Your task to perform on an android device: search for starred emails in the gmail app Image 0: 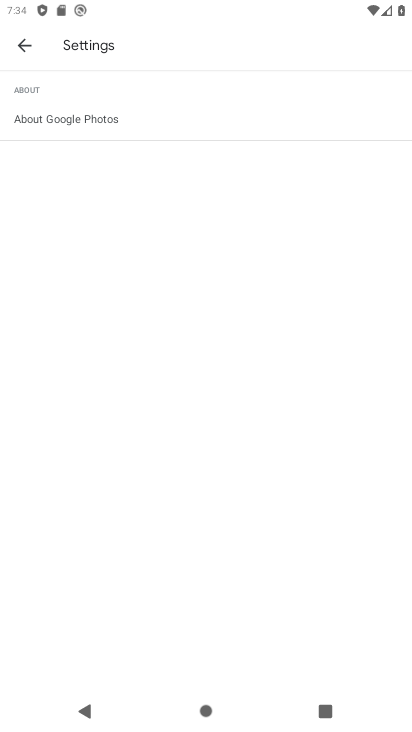
Step 0: press home button
Your task to perform on an android device: search for starred emails in the gmail app Image 1: 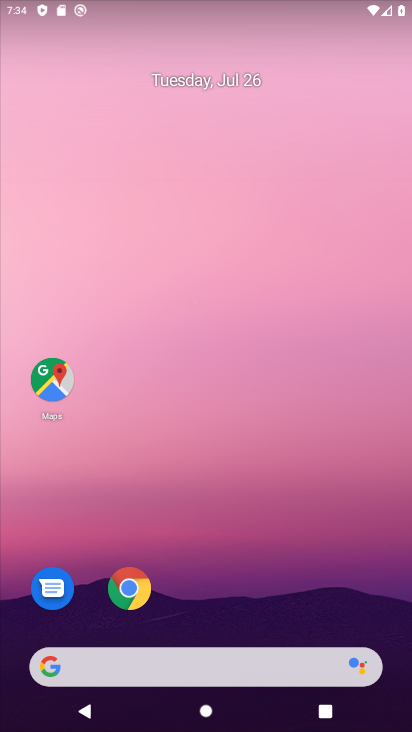
Step 1: drag from (240, 653) to (112, 145)
Your task to perform on an android device: search for starred emails in the gmail app Image 2: 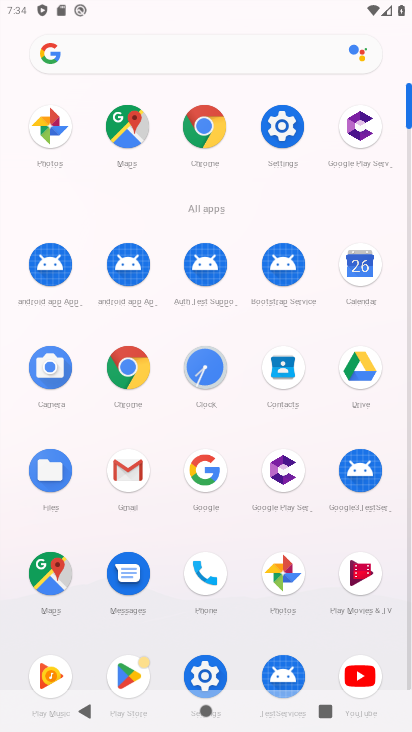
Step 2: click (120, 465)
Your task to perform on an android device: search for starred emails in the gmail app Image 3: 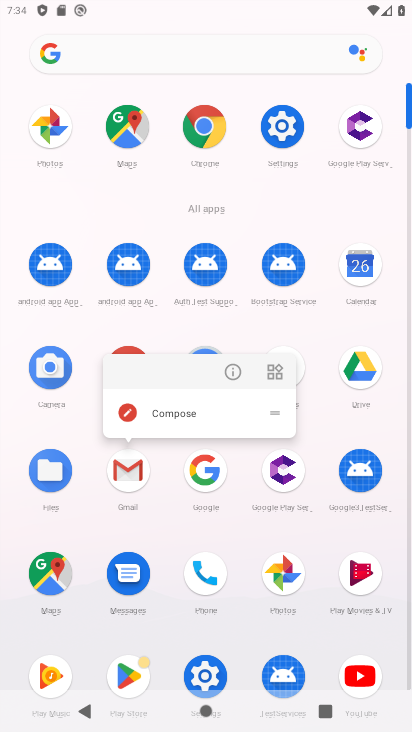
Step 3: click (118, 455)
Your task to perform on an android device: search for starred emails in the gmail app Image 4: 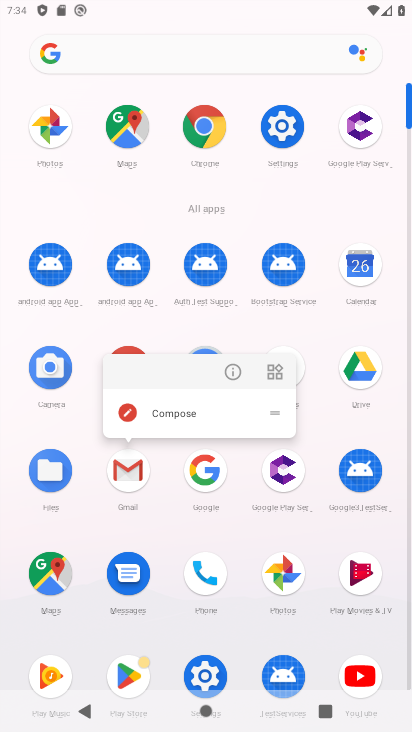
Step 4: click (126, 471)
Your task to perform on an android device: search for starred emails in the gmail app Image 5: 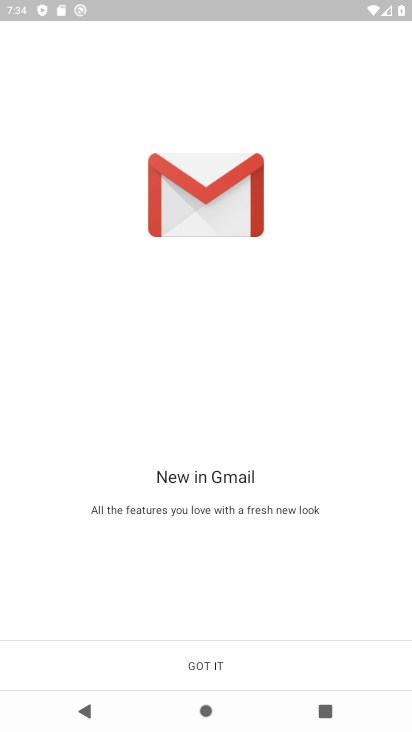
Step 5: click (232, 669)
Your task to perform on an android device: search for starred emails in the gmail app Image 6: 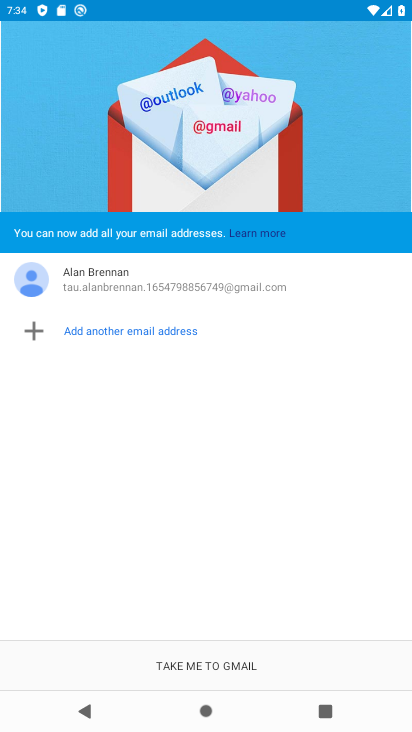
Step 6: click (232, 669)
Your task to perform on an android device: search for starred emails in the gmail app Image 7: 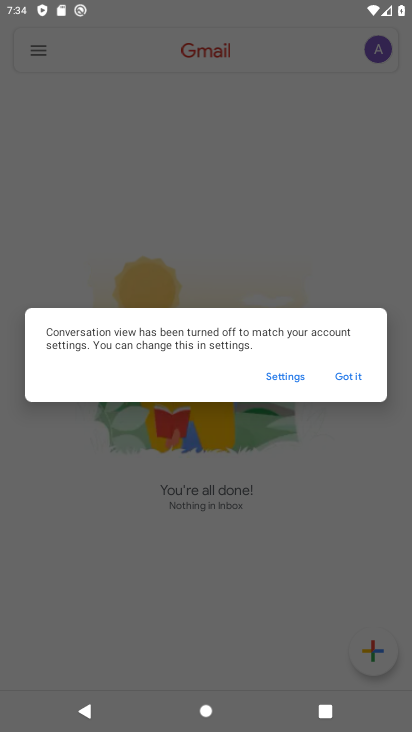
Step 7: click (351, 375)
Your task to perform on an android device: search for starred emails in the gmail app Image 8: 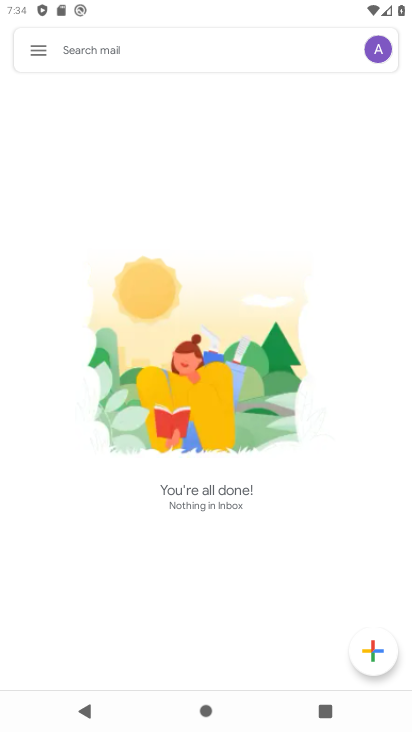
Step 8: click (44, 50)
Your task to perform on an android device: search for starred emails in the gmail app Image 9: 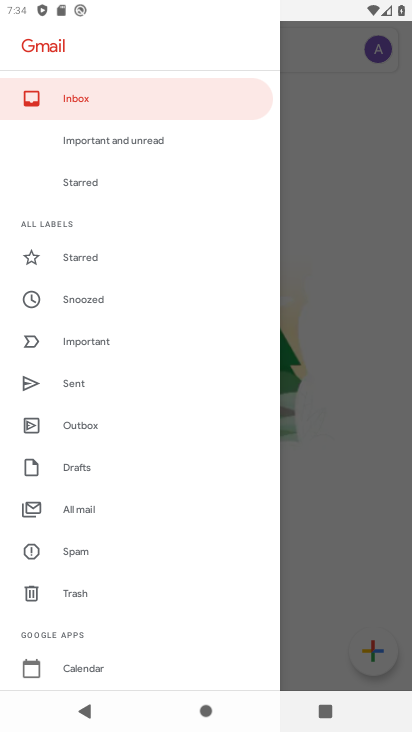
Step 9: click (86, 256)
Your task to perform on an android device: search for starred emails in the gmail app Image 10: 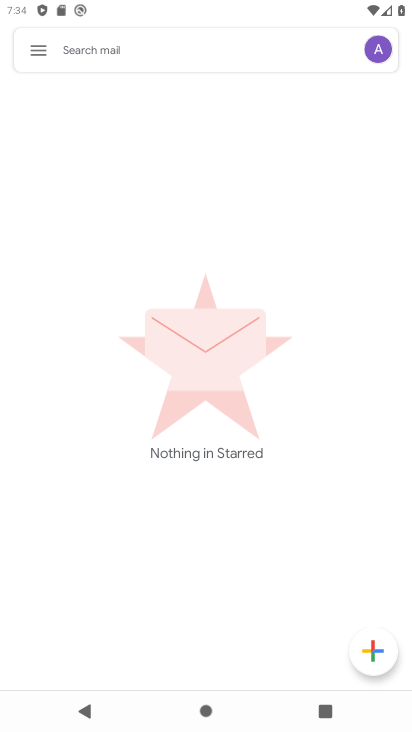
Step 10: task complete